Your task to perform on an android device: turn smart compose on in the gmail app Image 0: 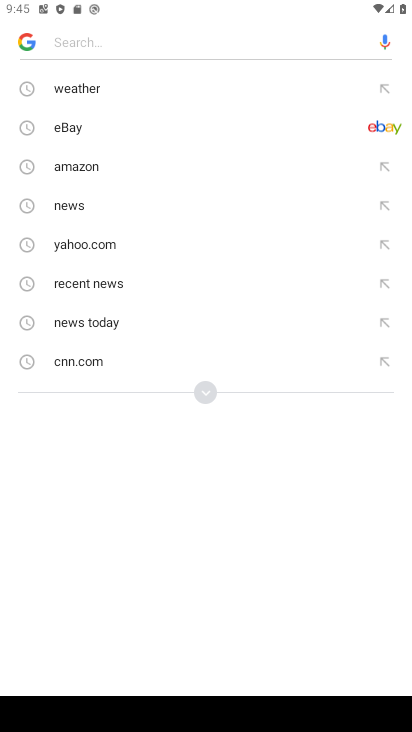
Step 0: press home button
Your task to perform on an android device: turn smart compose on in the gmail app Image 1: 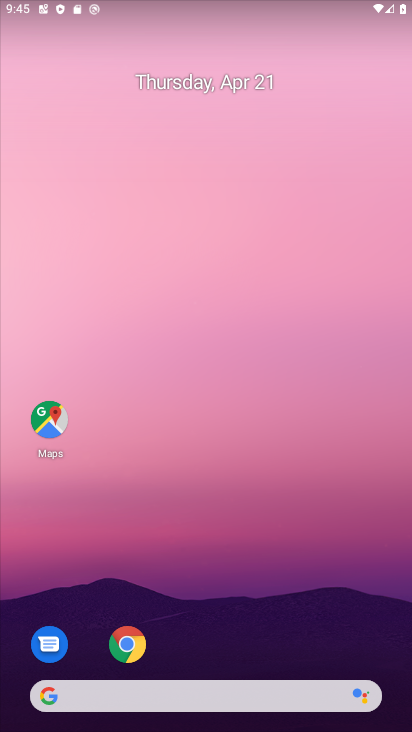
Step 1: drag from (157, 471) to (99, 63)
Your task to perform on an android device: turn smart compose on in the gmail app Image 2: 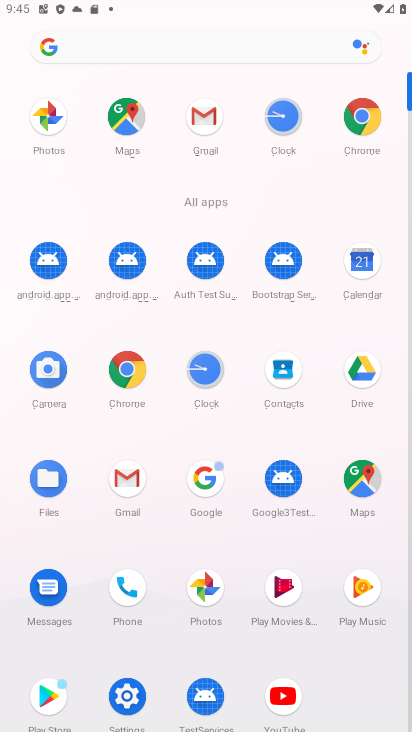
Step 2: click (132, 485)
Your task to perform on an android device: turn smart compose on in the gmail app Image 3: 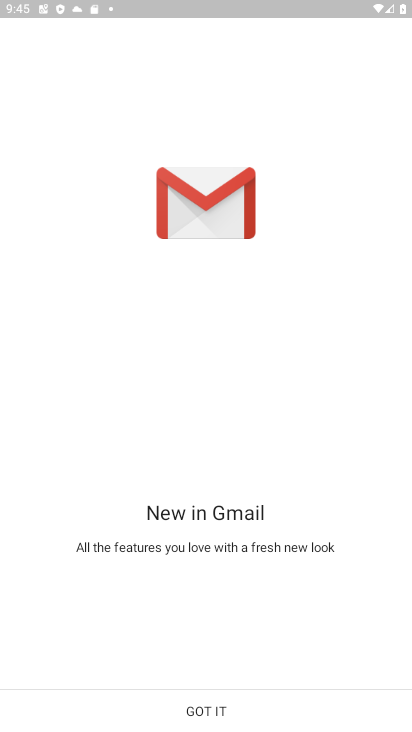
Step 3: click (203, 701)
Your task to perform on an android device: turn smart compose on in the gmail app Image 4: 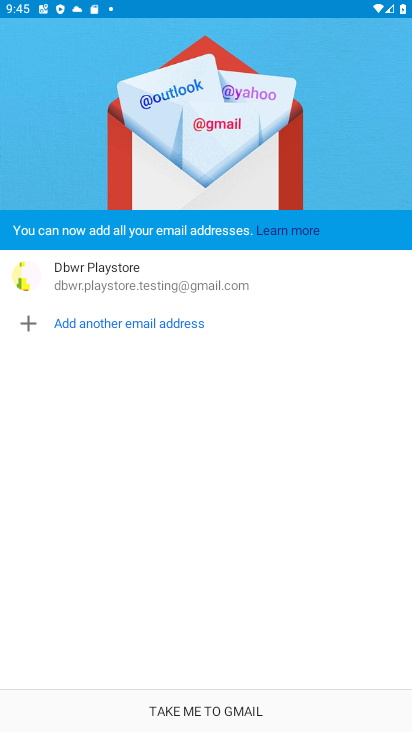
Step 4: click (204, 710)
Your task to perform on an android device: turn smart compose on in the gmail app Image 5: 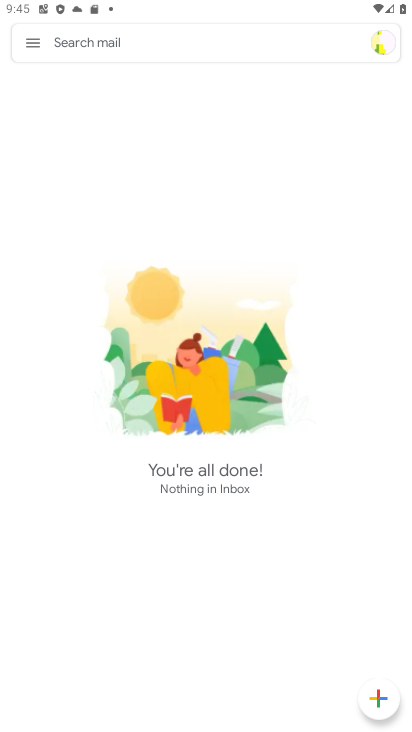
Step 5: click (30, 38)
Your task to perform on an android device: turn smart compose on in the gmail app Image 6: 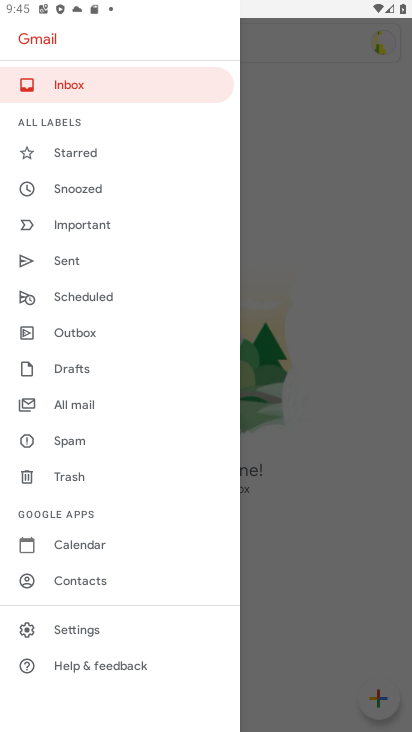
Step 6: click (50, 625)
Your task to perform on an android device: turn smart compose on in the gmail app Image 7: 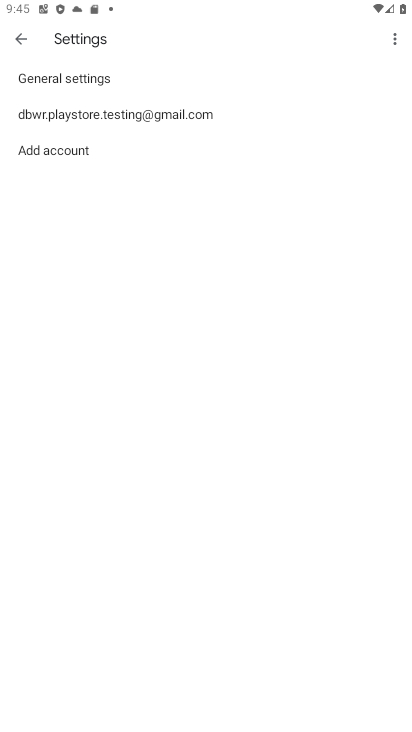
Step 7: click (165, 113)
Your task to perform on an android device: turn smart compose on in the gmail app Image 8: 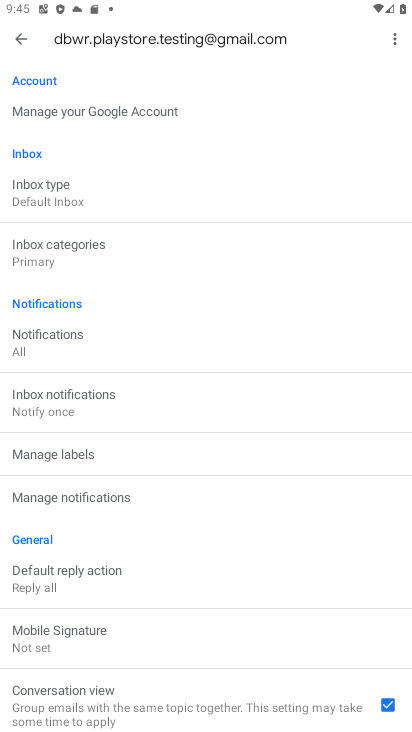
Step 8: task complete